Your task to perform on an android device: Go to Reddit.com Image 0: 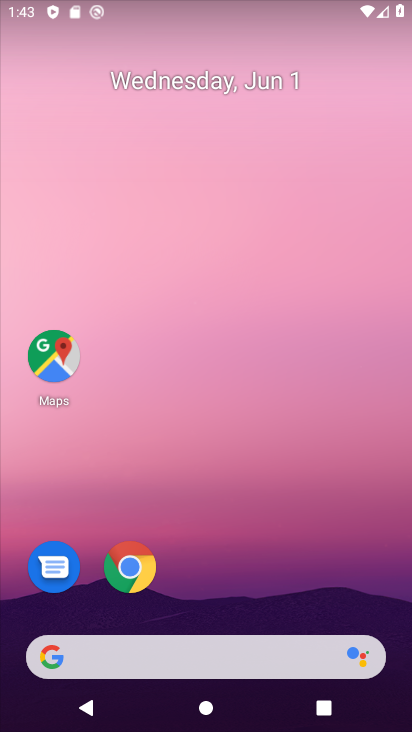
Step 0: click (170, 656)
Your task to perform on an android device: Go to Reddit.com Image 1: 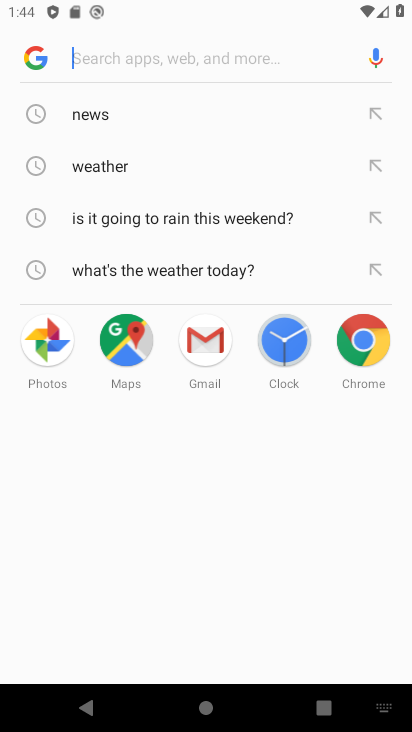
Step 1: click (130, 57)
Your task to perform on an android device: Go to Reddit.com Image 2: 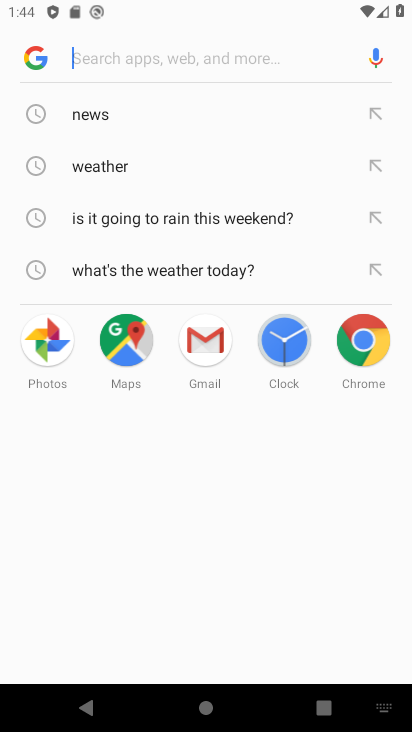
Step 2: type "reddit.com"
Your task to perform on an android device: Go to Reddit.com Image 3: 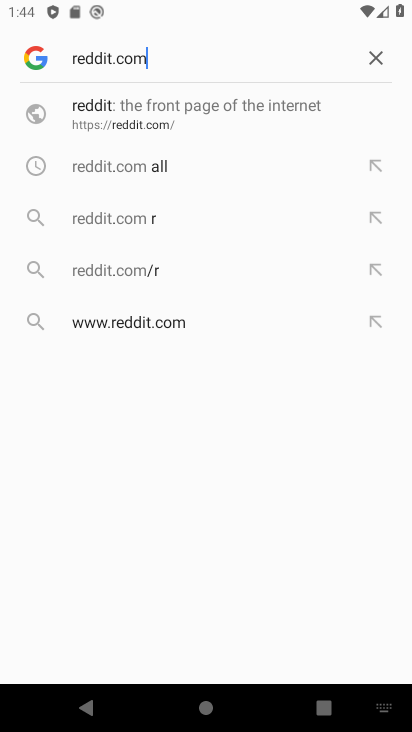
Step 3: click (127, 107)
Your task to perform on an android device: Go to Reddit.com Image 4: 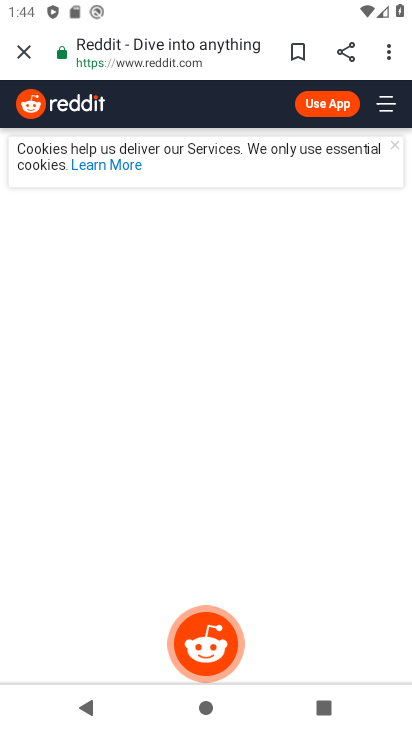
Step 4: task complete